Your task to perform on an android device: Go to Yahoo.com Image 0: 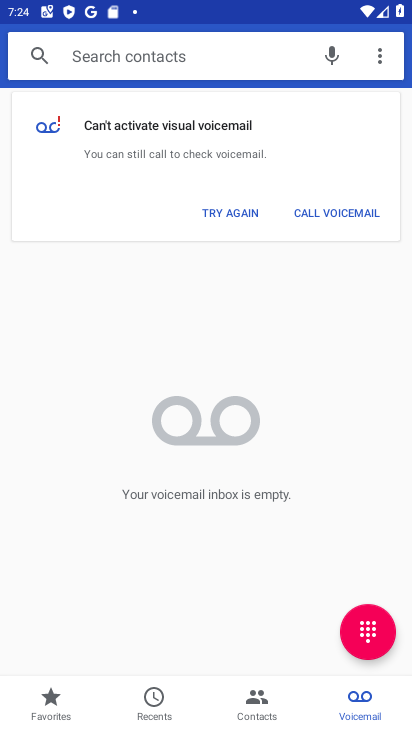
Step 0: press home button
Your task to perform on an android device: Go to Yahoo.com Image 1: 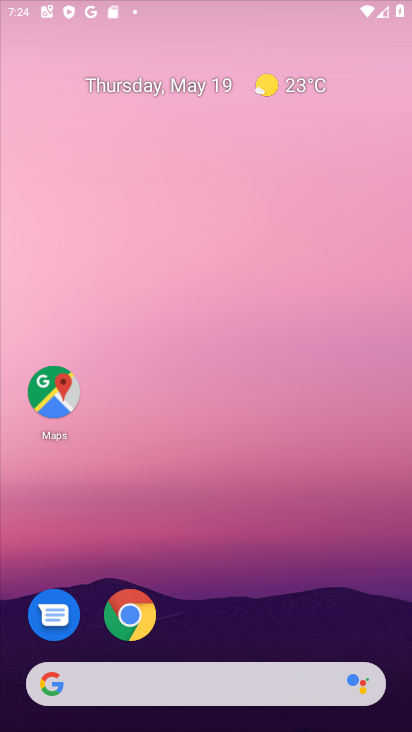
Step 1: drag from (363, 610) to (270, 61)
Your task to perform on an android device: Go to Yahoo.com Image 2: 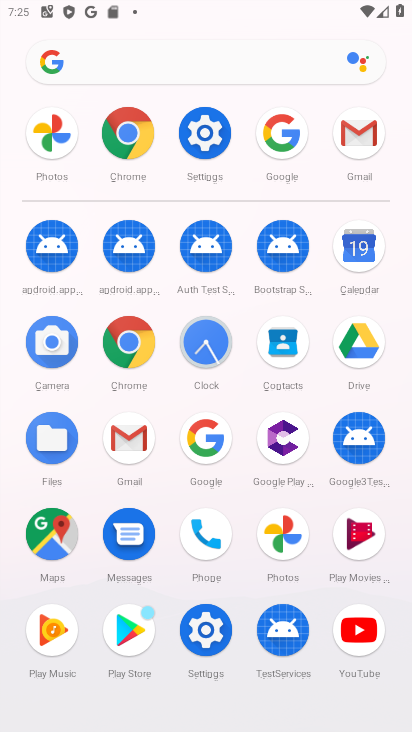
Step 2: click (136, 364)
Your task to perform on an android device: Go to Yahoo.com Image 3: 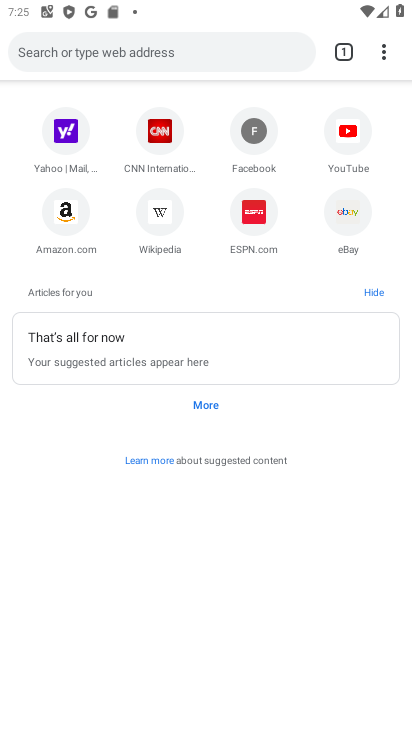
Step 3: click (67, 142)
Your task to perform on an android device: Go to Yahoo.com Image 4: 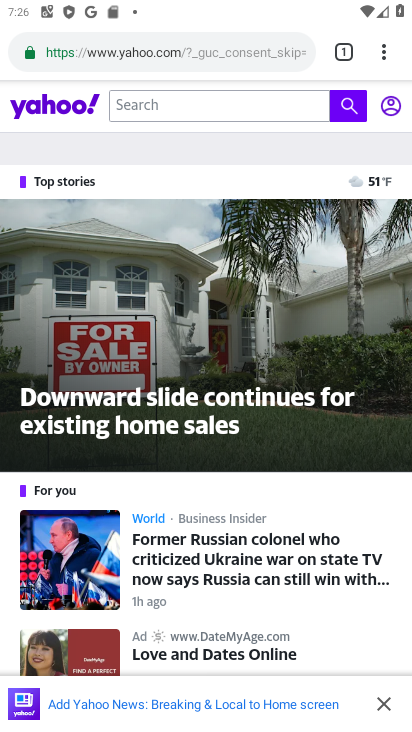
Step 4: task complete